Your task to perform on an android device: open app "Upside-Cash back on gas & food" (install if not already installed) Image 0: 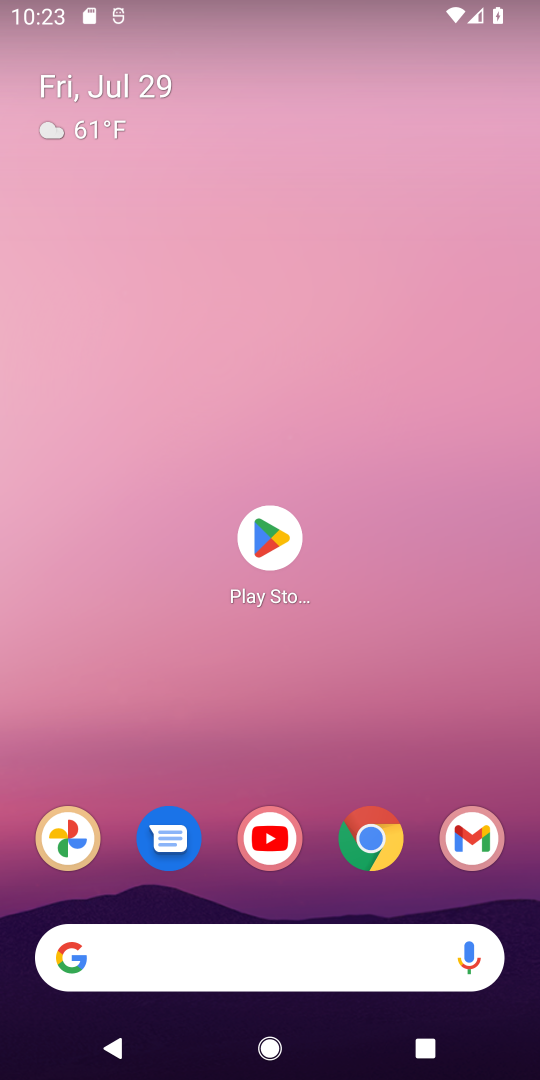
Step 0: click (270, 537)
Your task to perform on an android device: open app "Upside-Cash back on gas & food" (install if not already installed) Image 1: 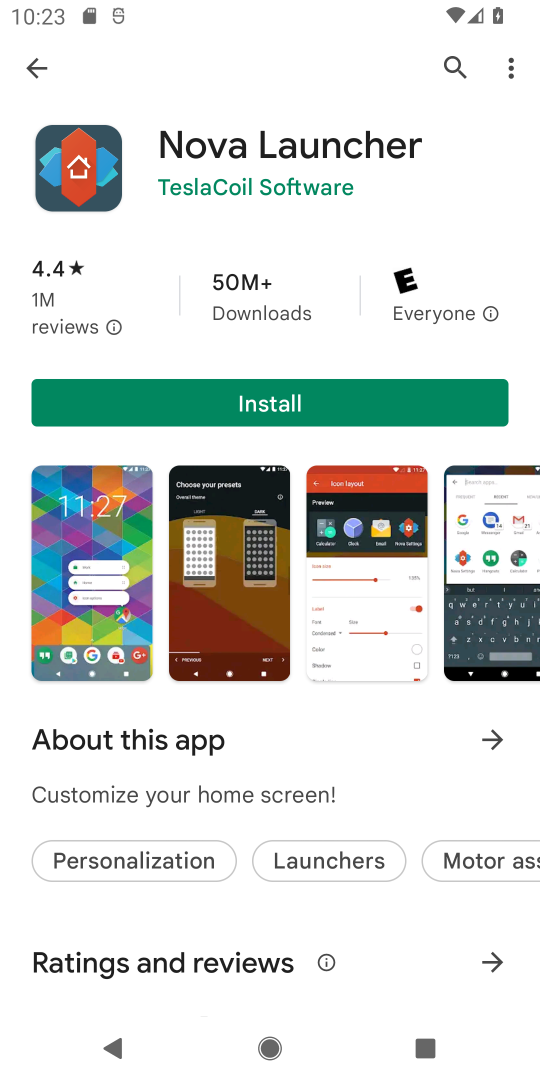
Step 1: click (459, 67)
Your task to perform on an android device: open app "Upside-Cash back on gas & food" (install if not already installed) Image 2: 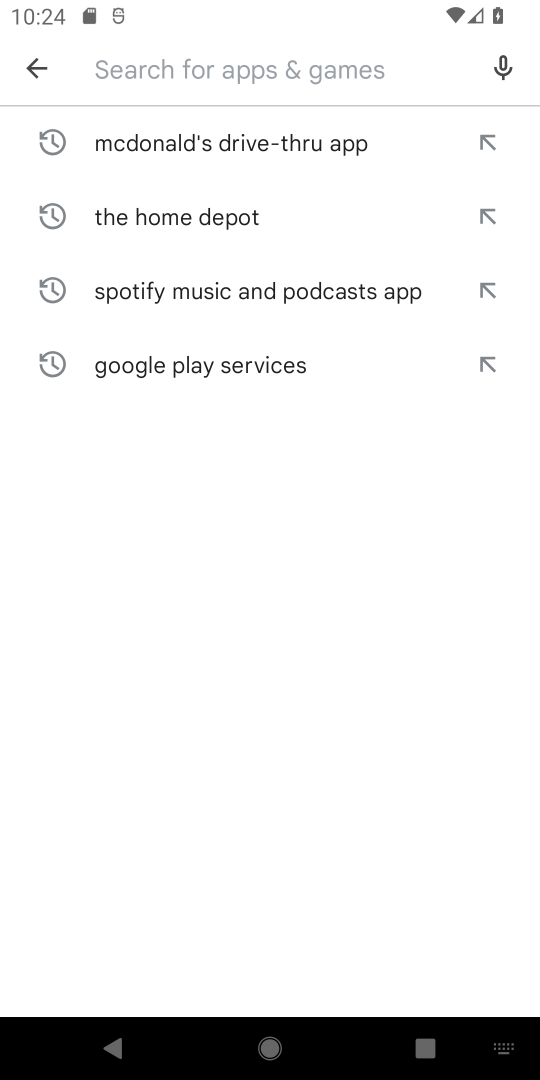
Step 2: type "Upside-Cash back on gas & food"
Your task to perform on an android device: open app "Upside-Cash back on gas & food" (install if not already installed) Image 3: 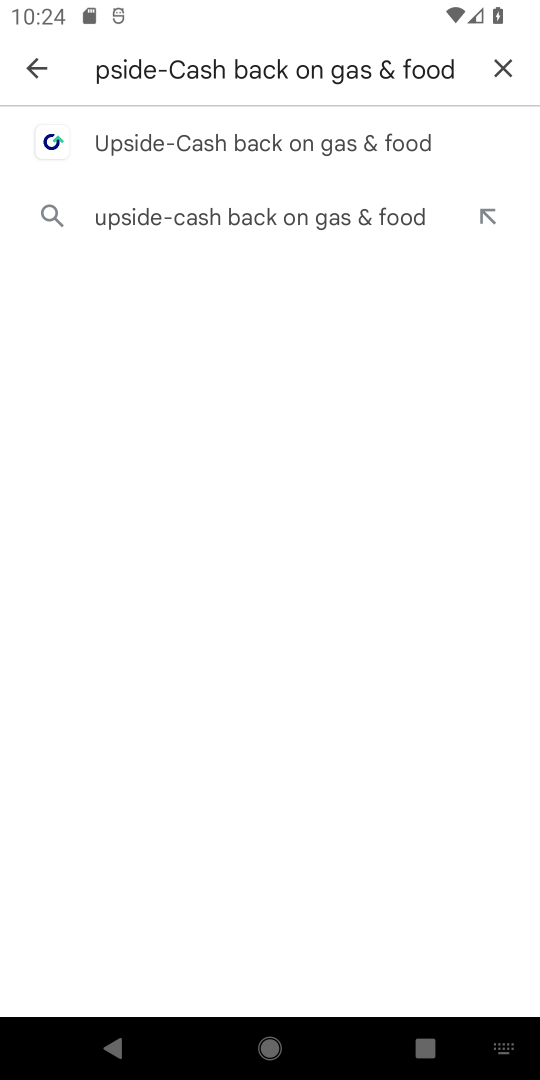
Step 3: click (251, 140)
Your task to perform on an android device: open app "Upside-Cash back on gas & food" (install if not already installed) Image 4: 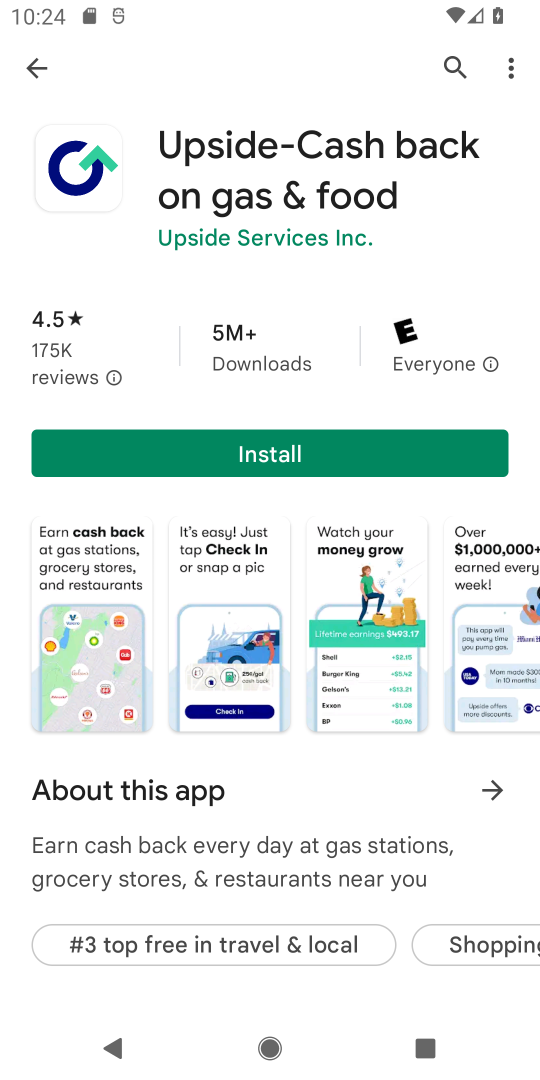
Step 4: click (263, 458)
Your task to perform on an android device: open app "Upside-Cash back on gas & food" (install if not already installed) Image 5: 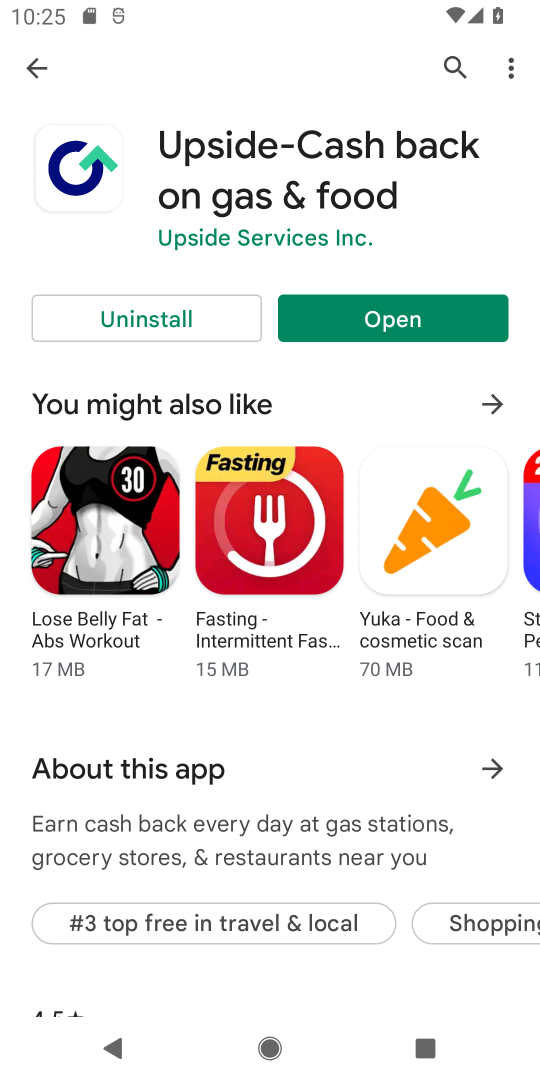
Step 5: click (368, 303)
Your task to perform on an android device: open app "Upside-Cash back on gas & food" (install if not already installed) Image 6: 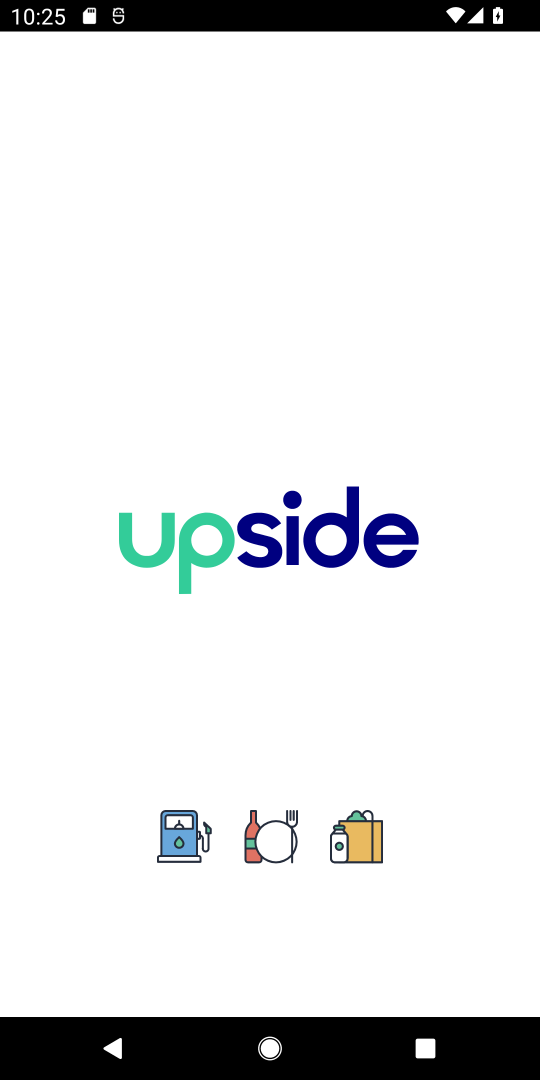
Step 6: task complete